Your task to perform on an android device: delete browsing data in the chrome app Image 0: 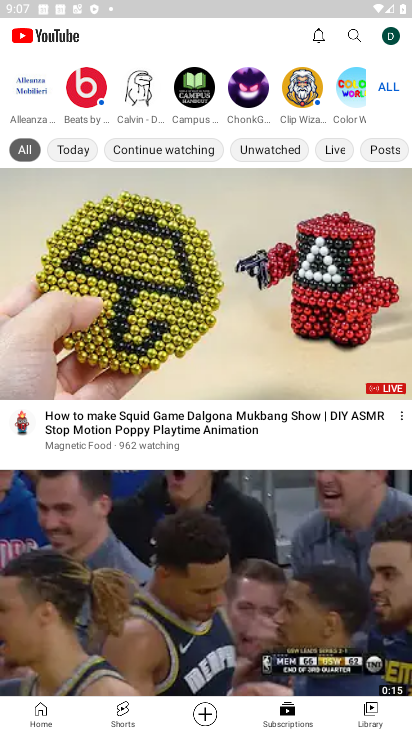
Step 0: drag from (216, 685) to (199, 377)
Your task to perform on an android device: delete browsing data in the chrome app Image 1: 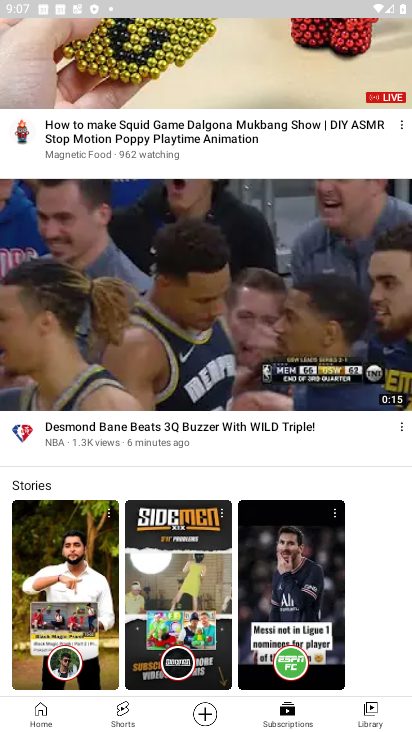
Step 1: press home button
Your task to perform on an android device: delete browsing data in the chrome app Image 2: 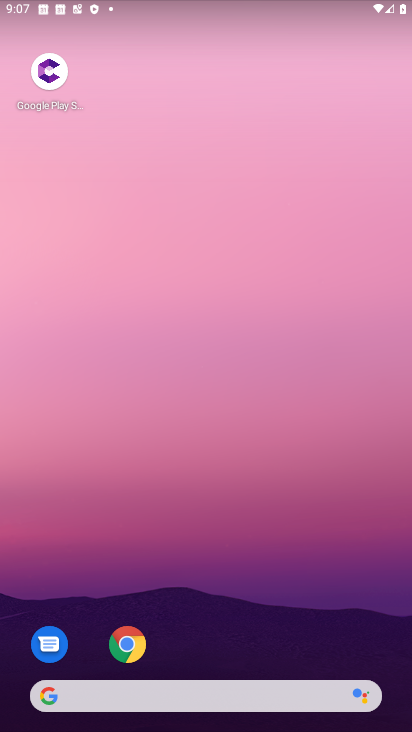
Step 2: click (137, 645)
Your task to perform on an android device: delete browsing data in the chrome app Image 3: 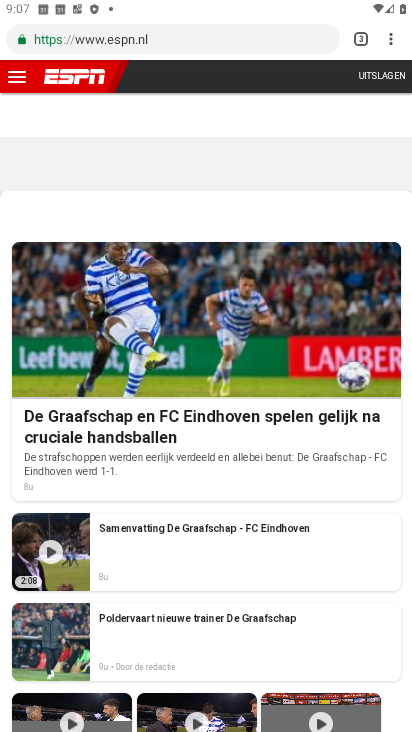
Step 3: click (381, 40)
Your task to perform on an android device: delete browsing data in the chrome app Image 4: 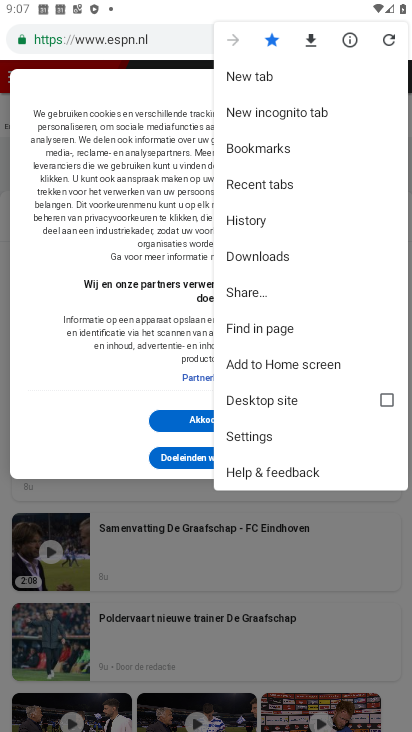
Step 4: click (238, 224)
Your task to perform on an android device: delete browsing data in the chrome app Image 5: 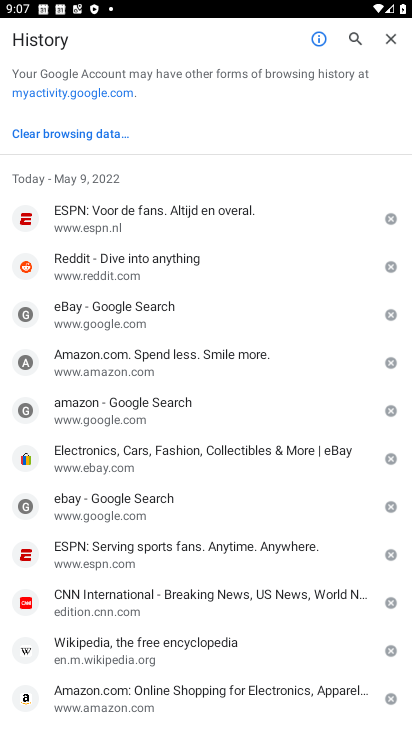
Step 5: click (65, 136)
Your task to perform on an android device: delete browsing data in the chrome app Image 6: 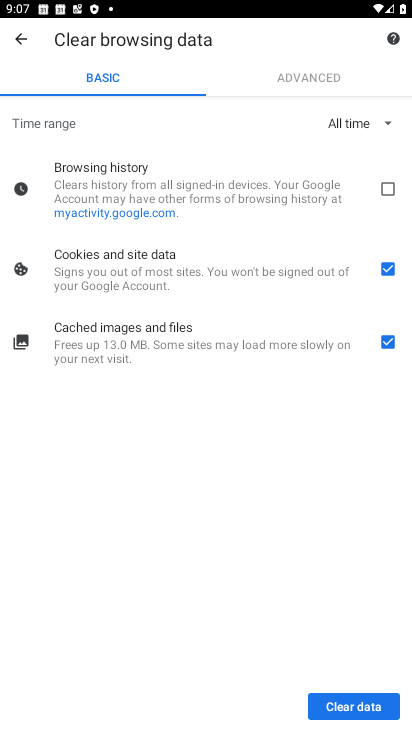
Step 6: click (398, 190)
Your task to perform on an android device: delete browsing data in the chrome app Image 7: 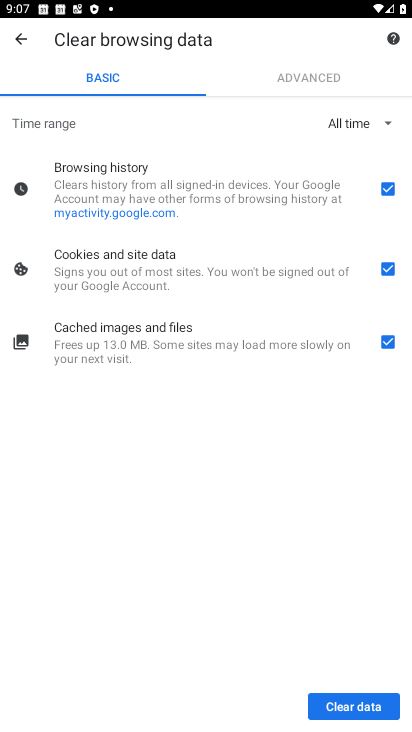
Step 7: click (336, 692)
Your task to perform on an android device: delete browsing data in the chrome app Image 8: 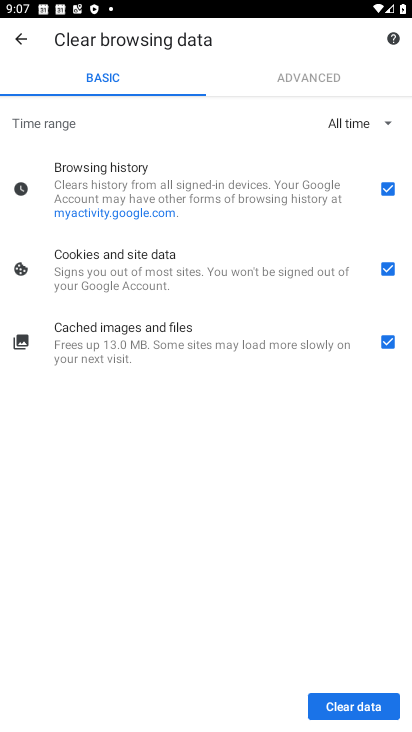
Step 8: click (326, 709)
Your task to perform on an android device: delete browsing data in the chrome app Image 9: 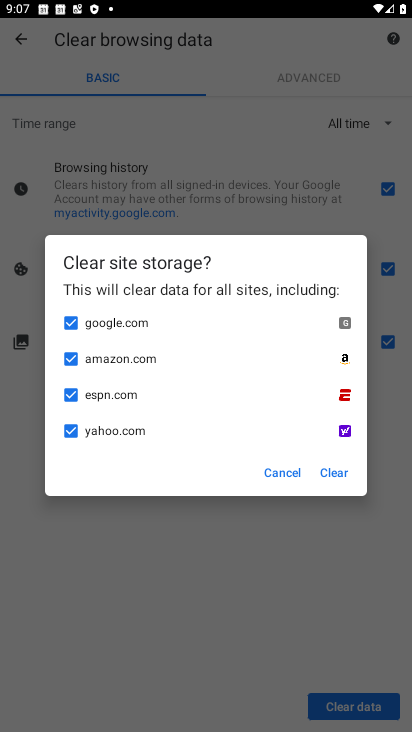
Step 9: click (333, 472)
Your task to perform on an android device: delete browsing data in the chrome app Image 10: 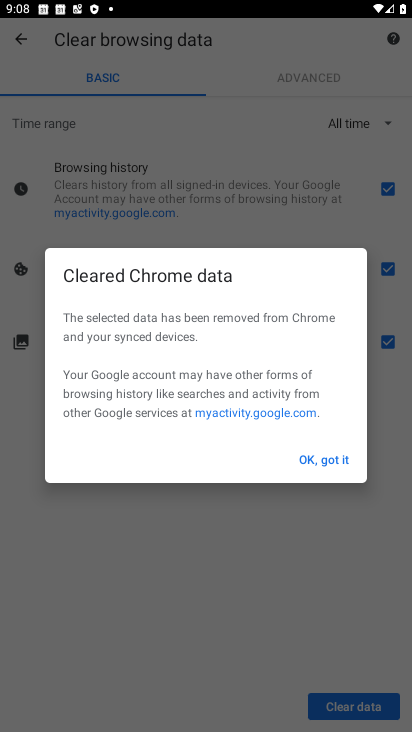
Step 10: click (314, 445)
Your task to perform on an android device: delete browsing data in the chrome app Image 11: 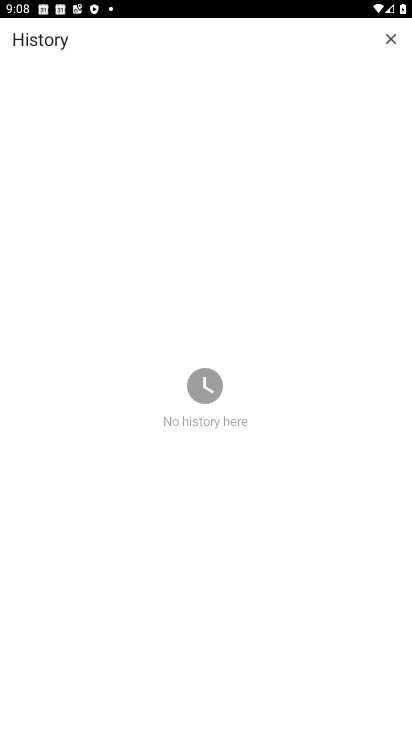
Step 11: task complete